Your task to perform on an android device: turn on priority inbox in the gmail app Image 0: 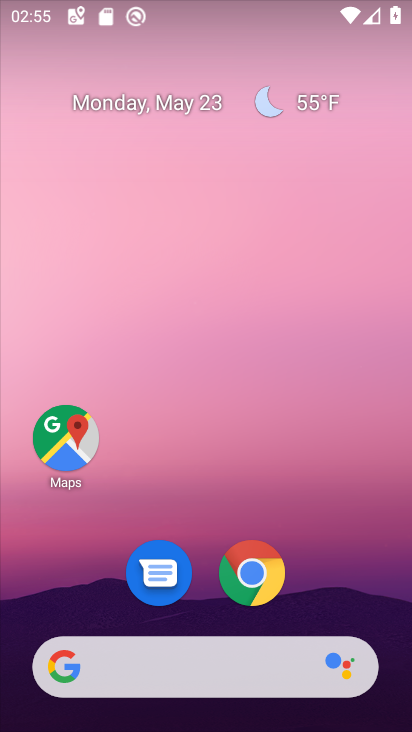
Step 0: drag from (319, 564) to (254, 170)
Your task to perform on an android device: turn on priority inbox in the gmail app Image 1: 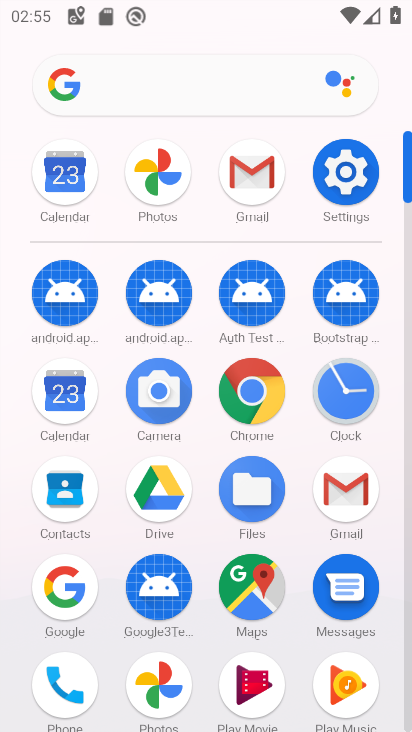
Step 1: click (247, 169)
Your task to perform on an android device: turn on priority inbox in the gmail app Image 2: 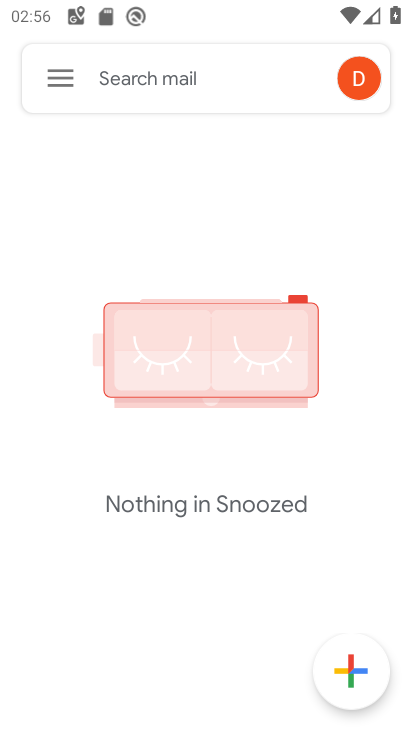
Step 2: click (43, 70)
Your task to perform on an android device: turn on priority inbox in the gmail app Image 3: 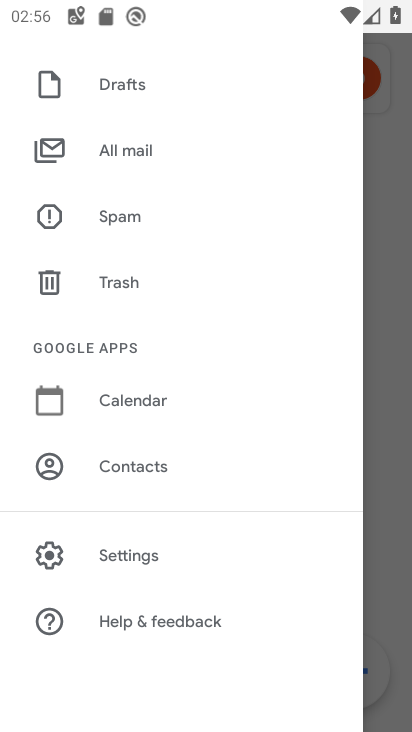
Step 3: drag from (162, 117) to (143, 565)
Your task to perform on an android device: turn on priority inbox in the gmail app Image 4: 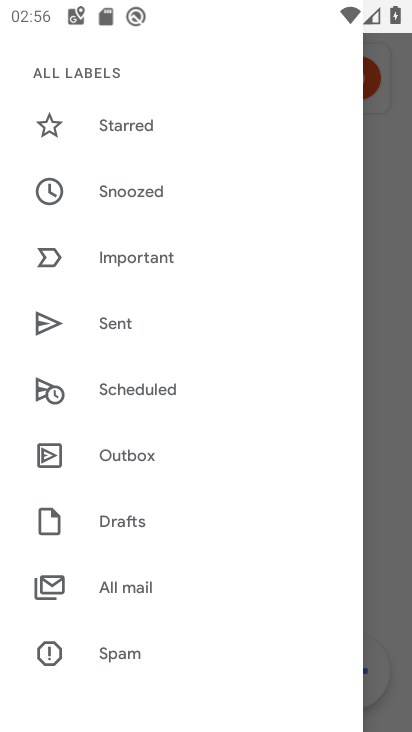
Step 4: drag from (135, 171) to (156, 529)
Your task to perform on an android device: turn on priority inbox in the gmail app Image 5: 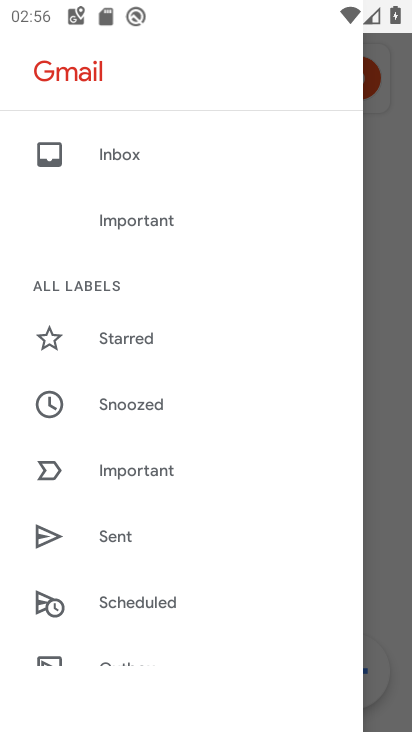
Step 5: click (120, 172)
Your task to perform on an android device: turn on priority inbox in the gmail app Image 6: 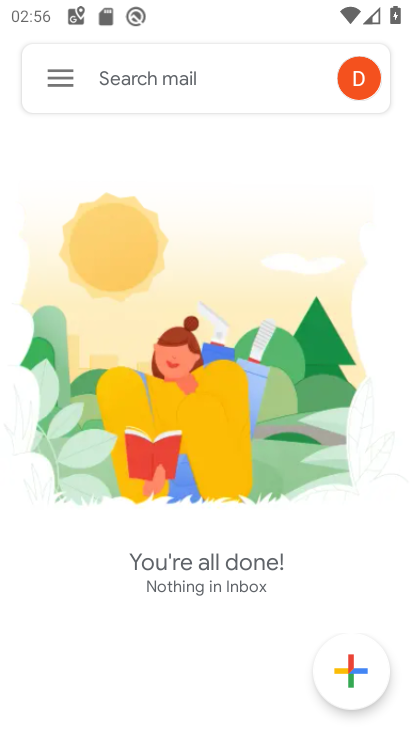
Step 6: task complete